Your task to perform on an android device: Search for Mexican restaurants on Maps Image 0: 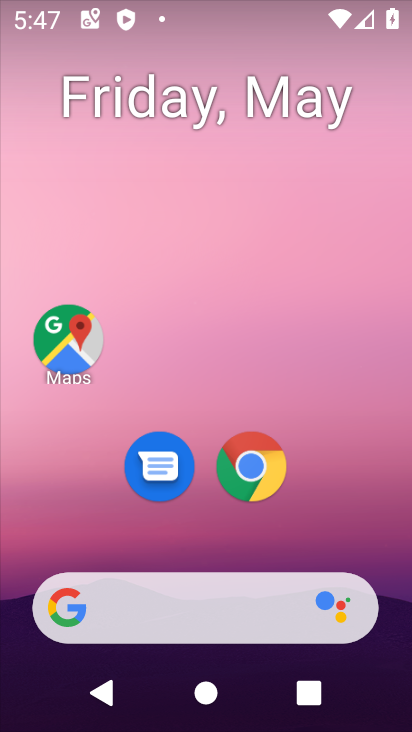
Step 0: drag from (332, 496) to (259, 36)
Your task to perform on an android device: Search for Mexican restaurants on Maps Image 1: 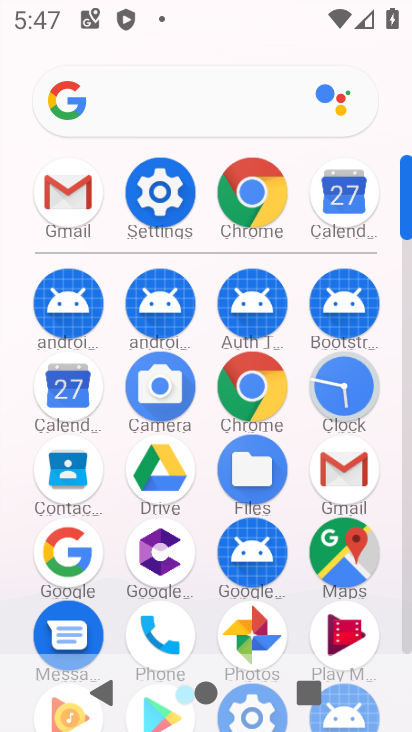
Step 1: drag from (25, 506) to (21, 234)
Your task to perform on an android device: Search for Mexican restaurants on Maps Image 2: 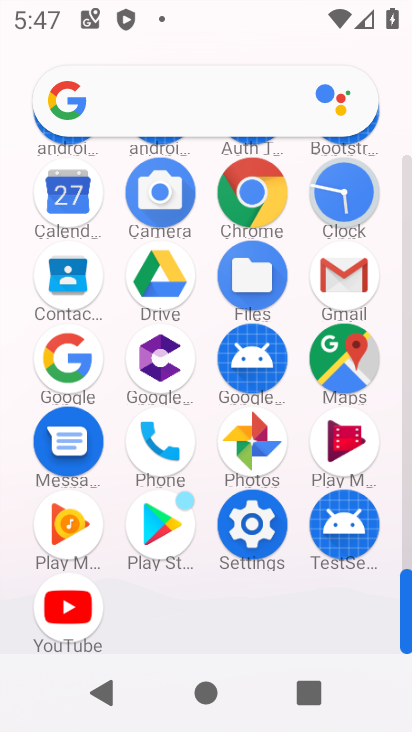
Step 2: drag from (13, 183) to (23, 508)
Your task to perform on an android device: Search for Mexican restaurants on Maps Image 3: 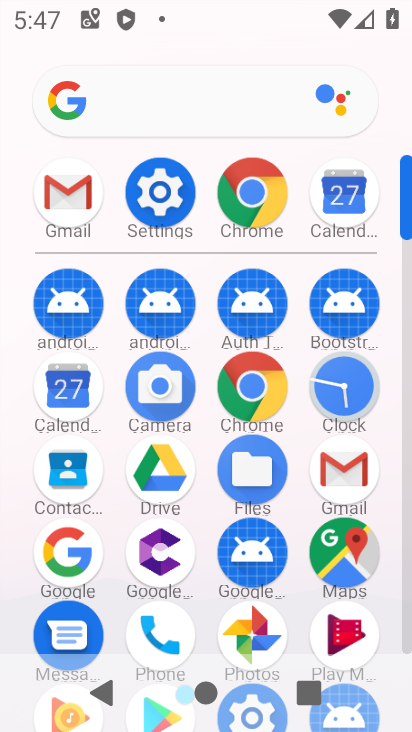
Step 3: drag from (7, 534) to (6, 254)
Your task to perform on an android device: Search for Mexican restaurants on Maps Image 4: 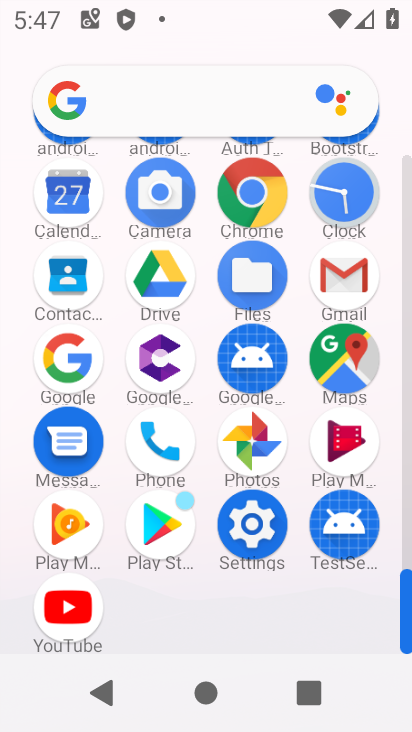
Step 4: click (346, 351)
Your task to perform on an android device: Search for Mexican restaurants on Maps Image 5: 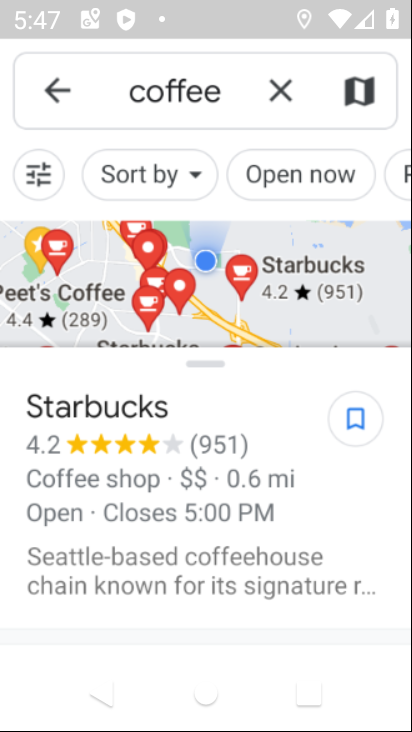
Step 5: click (279, 92)
Your task to perform on an android device: Search for Mexican restaurants on Maps Image 6: 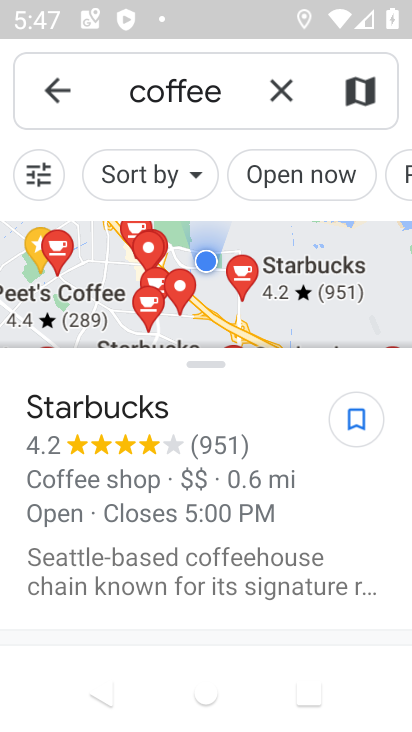
Step 6: click (269, 84)
Your task to perform on an android device: Search for Mexican restaurants on Maps Image 7: 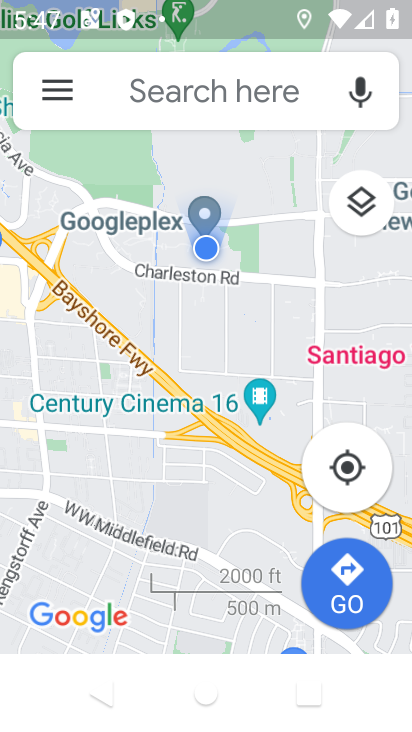
Step 7: click (302, 90)
Your task to perform on an android device: Search for Mexican restaurants on Maps Image 8: 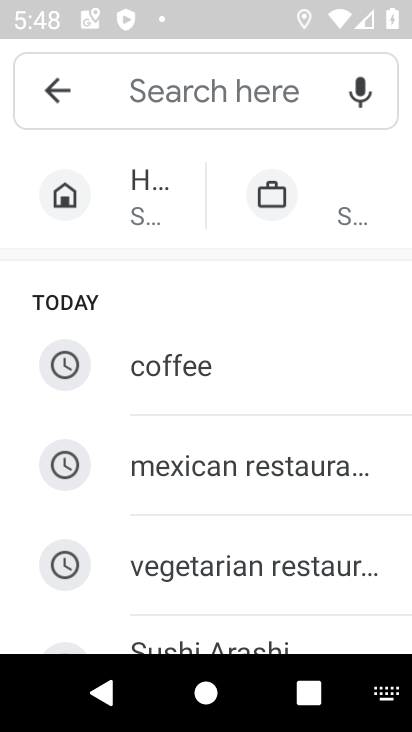
Step 8: click (258, 456)
Your task to perform on an android device: Search for Mexican restaurants on Maps Image 9: 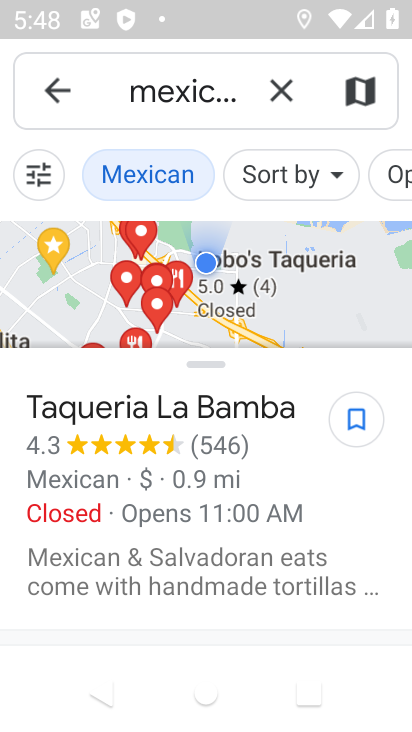
Step 9: task complete